Your task to perform on an android device: What's the weather like in Mexico City? Image 0: 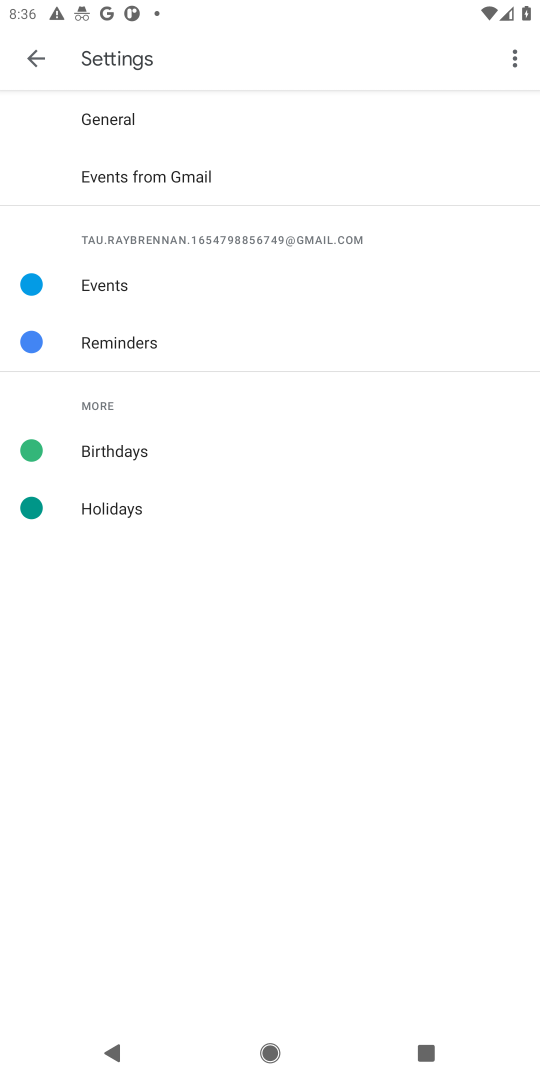
Step 0: press home button
Your task to perform on an android device: What's the weather like in Mexico City? Image 1: 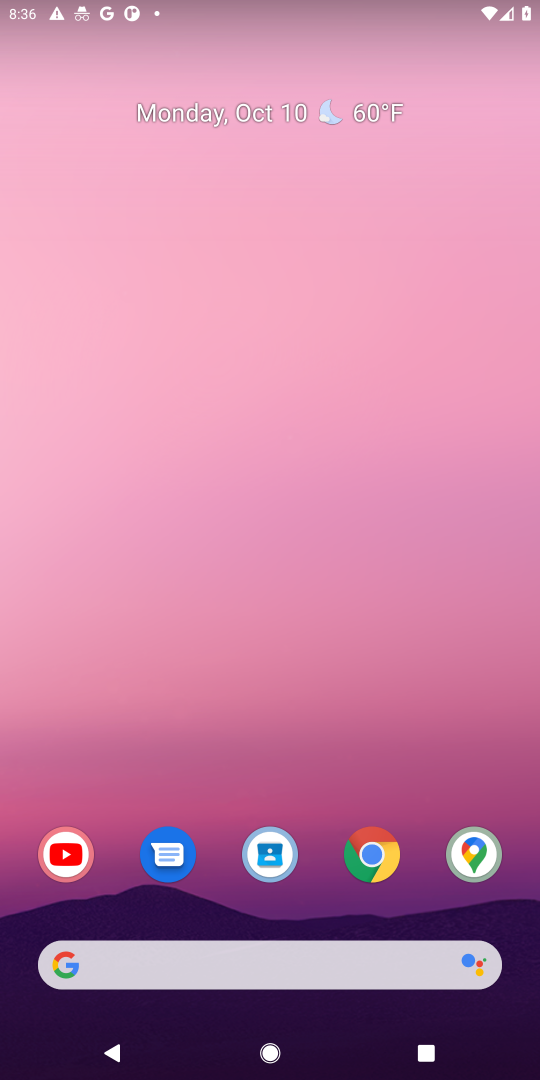
Step 1: click (381, 851)
Your task to perform on an android device: What's the weather like in Mexico City? Image 2: 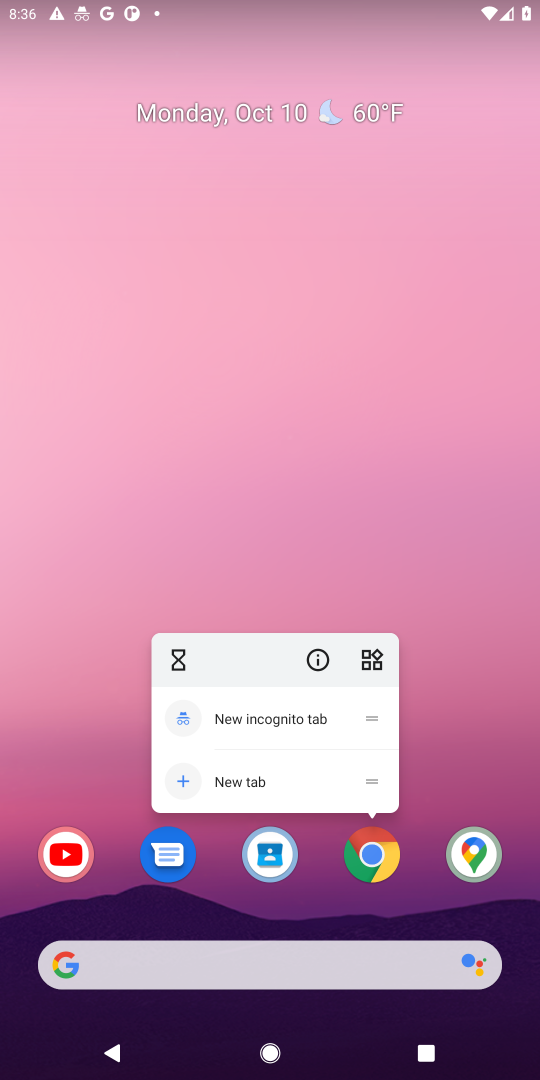
Step 2: click (381, 851)
Your task to perform on an android device: What's the weather like in Mexico City? Image 3: 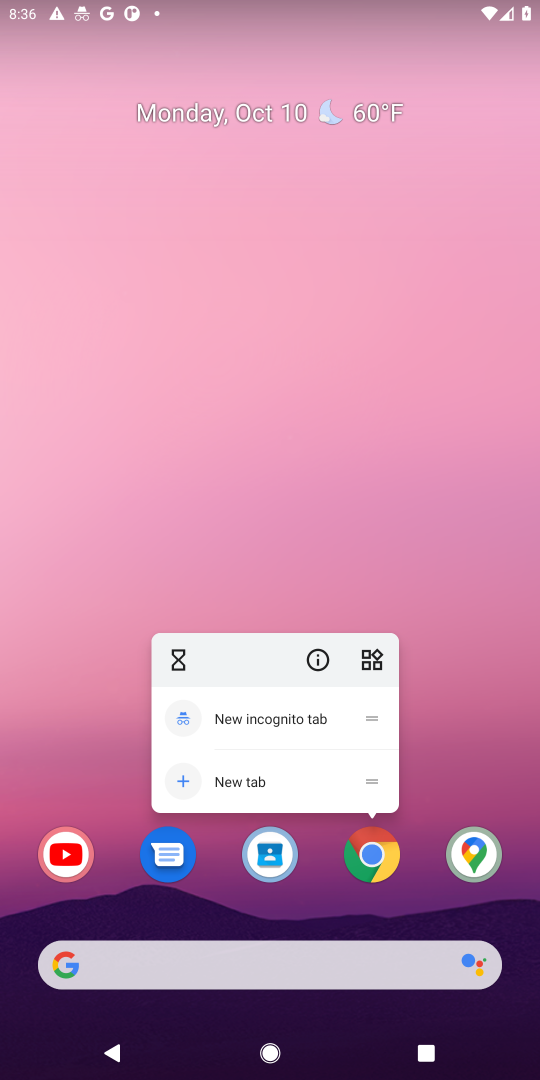
Step 3: click (372, 858)
Your task to perform on an android device: What's the weather like in Mexico City? Image 4: 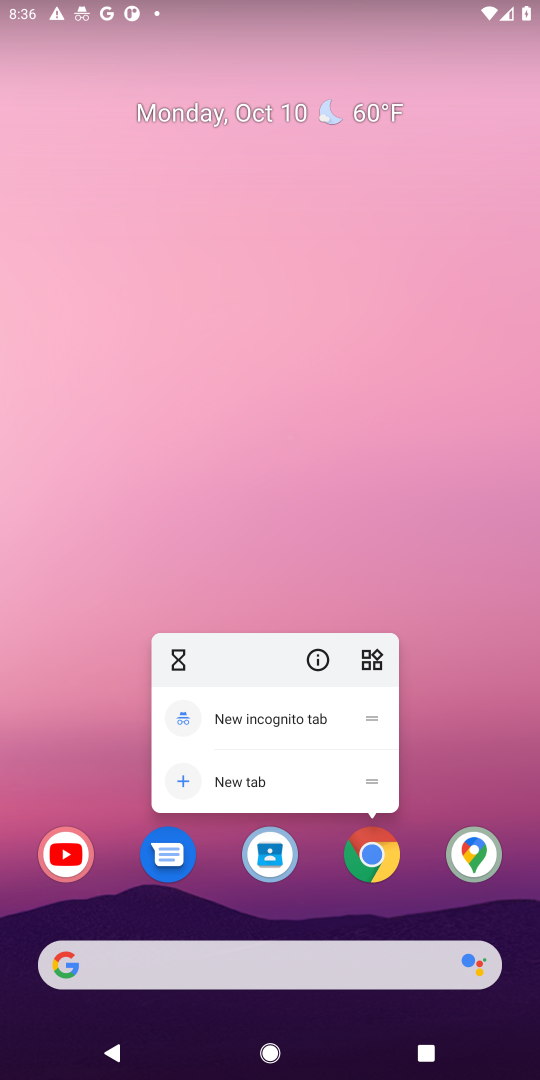
Step 4: click (372, 859)
Your task to perform on an android device: What's the weather like in Mexico City? Image 5: 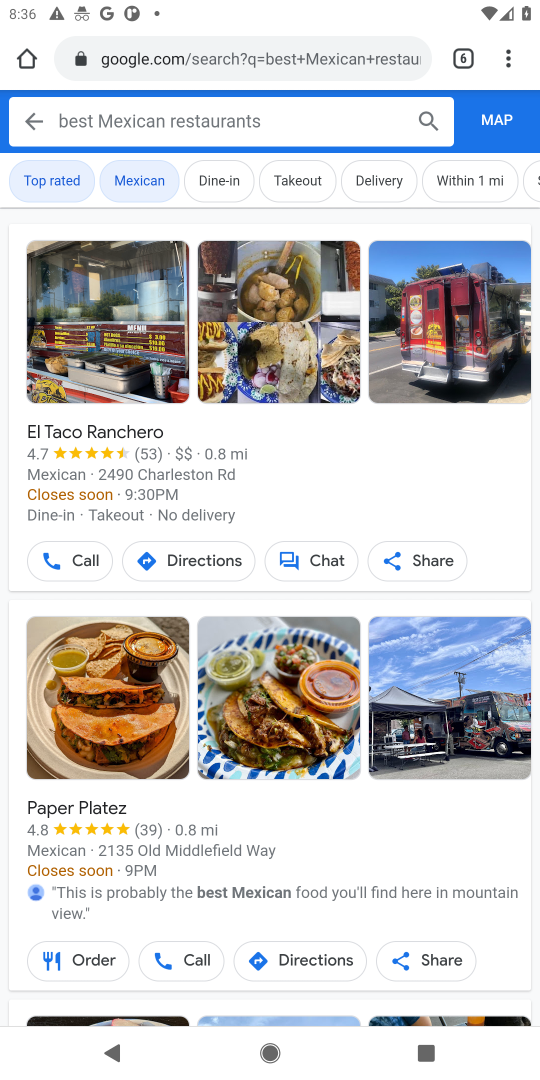
Step 5: click (270, 57)
Your task to perform on an android device: What's the weather like in Mexico City? Image 6: 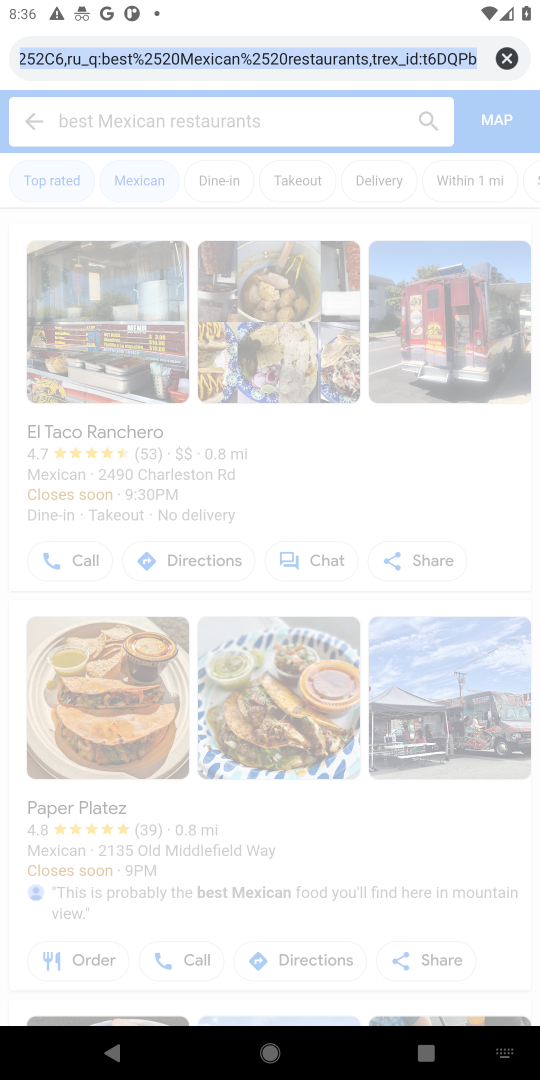
Step 6: click (505, 62)
Your task to perform on an android device: What's the weather like in Mexico City? Image 7: 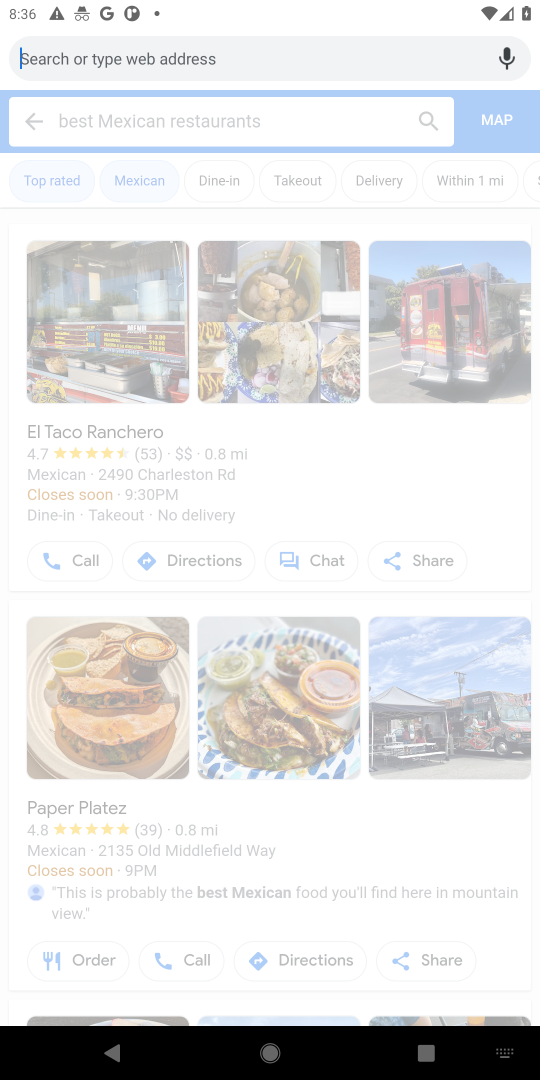
Step 7: press enter
Your task to perform on an android device: What's the weather like in Mexico City? Image 8: 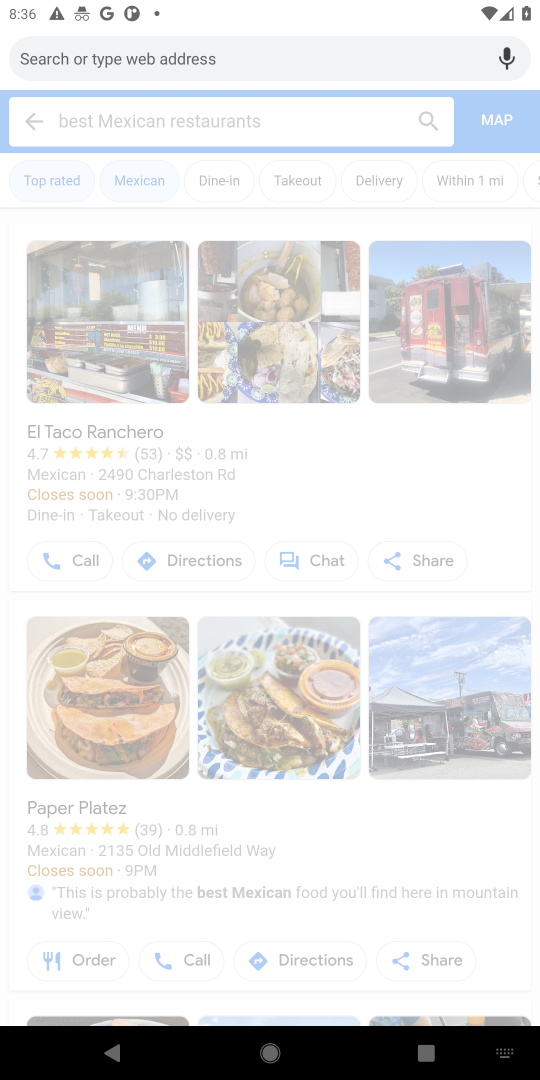
Step 8: type " weather like in Mexico City"
Your task to perform on an android device: What's the weather like in Mexico City? Image 9: 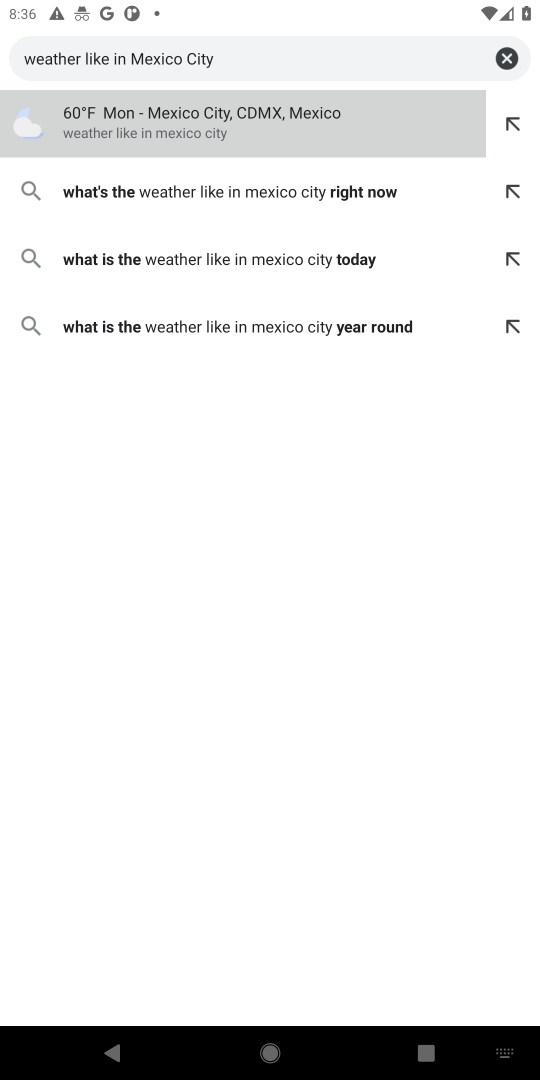
Step 9: click (221, 116)
Your task to perform on an android device: What's the weather like in Mexico City? Image 10: 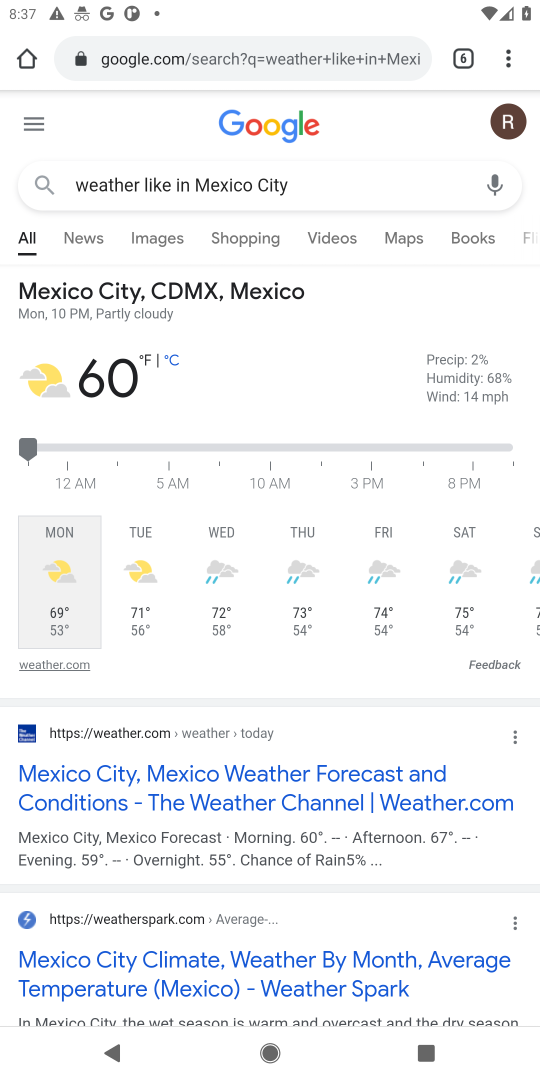
Step 10: task complete